Your task to perform on an android device: Open the phone app and click the voicemail tab. Image 0: 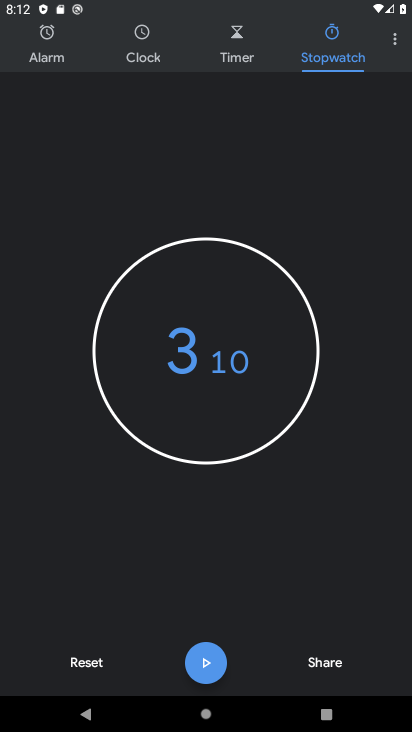
Step 0: press home button
Your task to perform on an android device: Open the phone app and click the voicemail tab. Image 1: 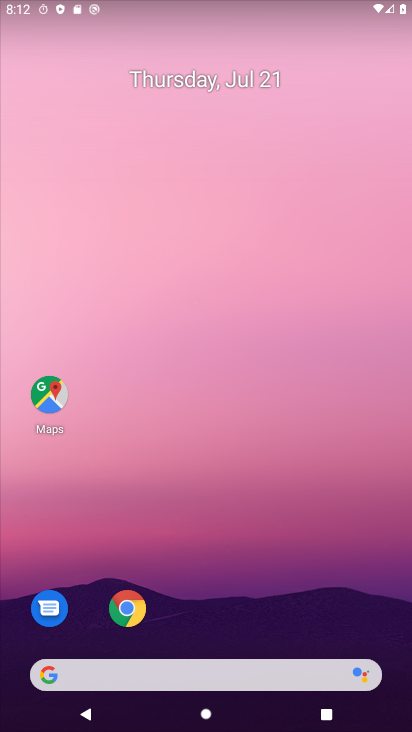
Step 1: drag from (256, 611) to (226, 102)
Your task to perform on an android device: Open the phone app and click the voicemail tab. Image 2: 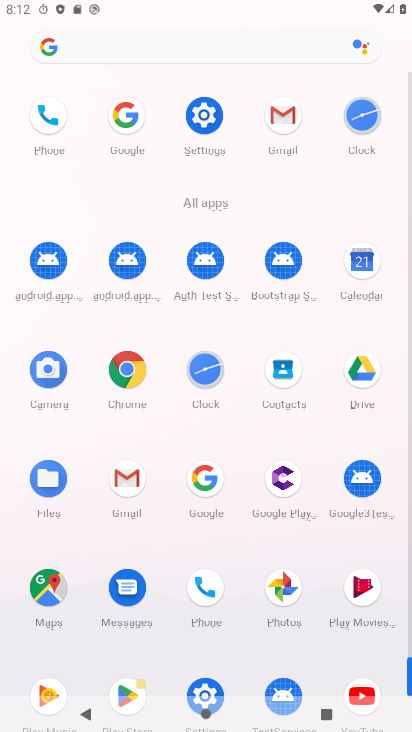
Step 2: click (199, 585)
Your task to perform on an android device: Open the phone app and click the voicemail tab. Image 3: 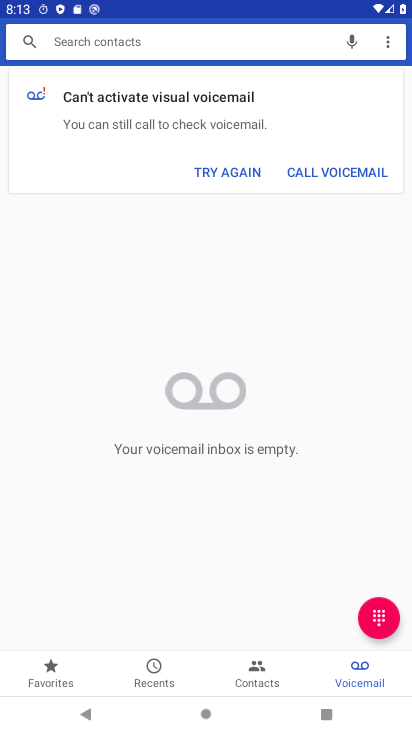
Step 3: task complete